Your task to perform on an android device: turn on data saver in the chrome app Image 0: 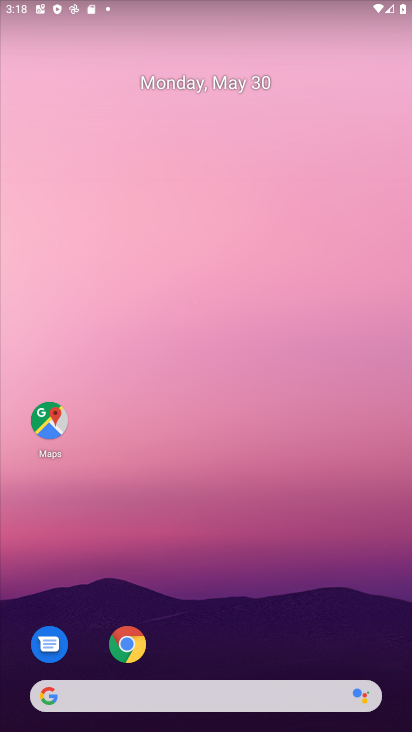
Step 0: click (136, 651)
Your task to perform on an android device: turn on data saver in the chrome app Image 1: 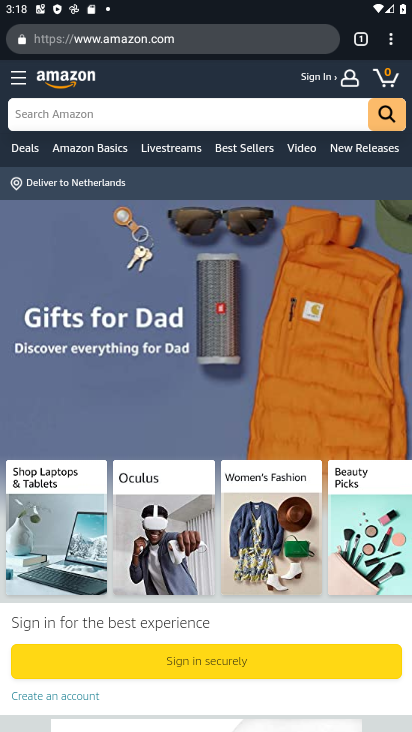
Step 1: click (392, 52)
Your task to perform on an android device: turn on data saver in the chrome app Image 2: 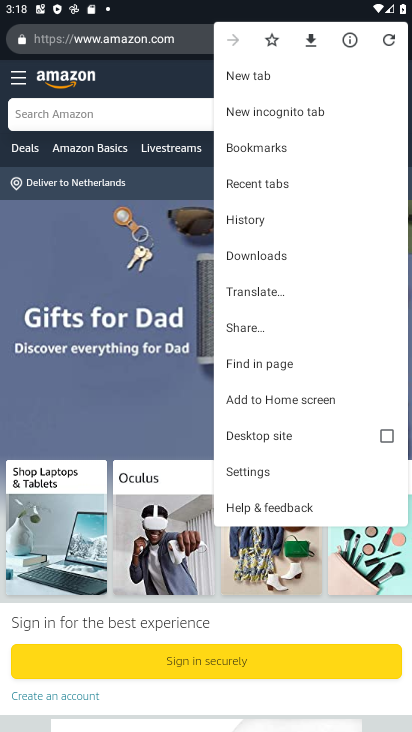
Step 2: click (279, 465)
Your task to perform on an android device: turn on data saver in the chrome app Image 3: 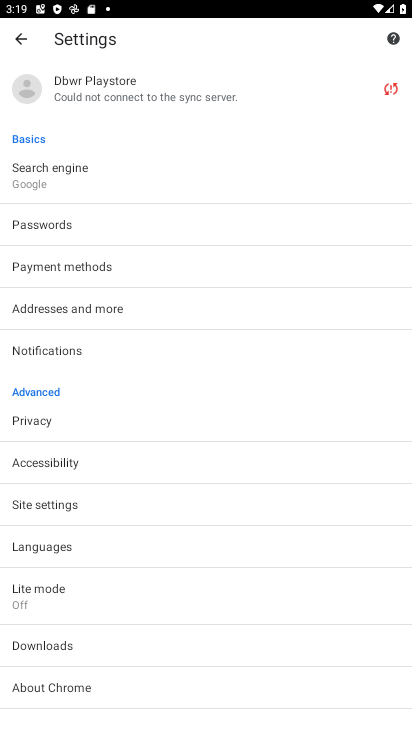
Step 3: click (117, 586)
Your task to perform on an android device: turn on data saver in the chrome app Image 4: 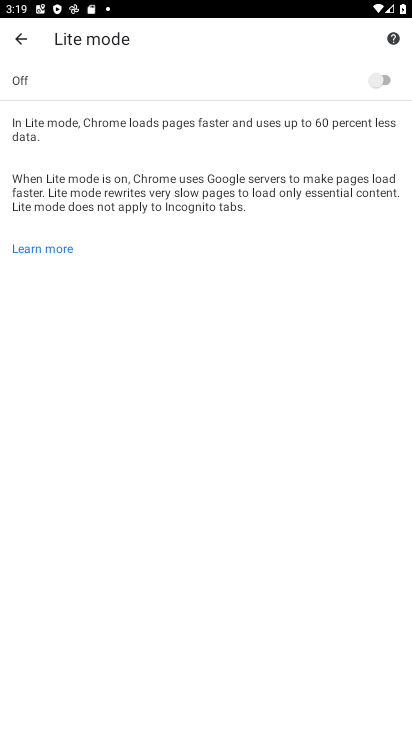
Step 4: click (383, 84)
Your task to perform on an android device: turn on data saver in the chrome app Image 5: 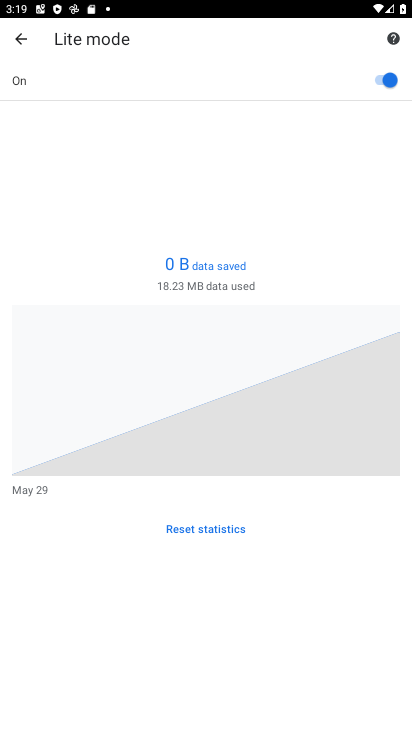
Step 5: task complete